Your task to perform on an android device: Empty the shopping cart on walmart. Search for logitech g910 on walmart, select the first entry, add it to the cart, then select checkout. Image 0: 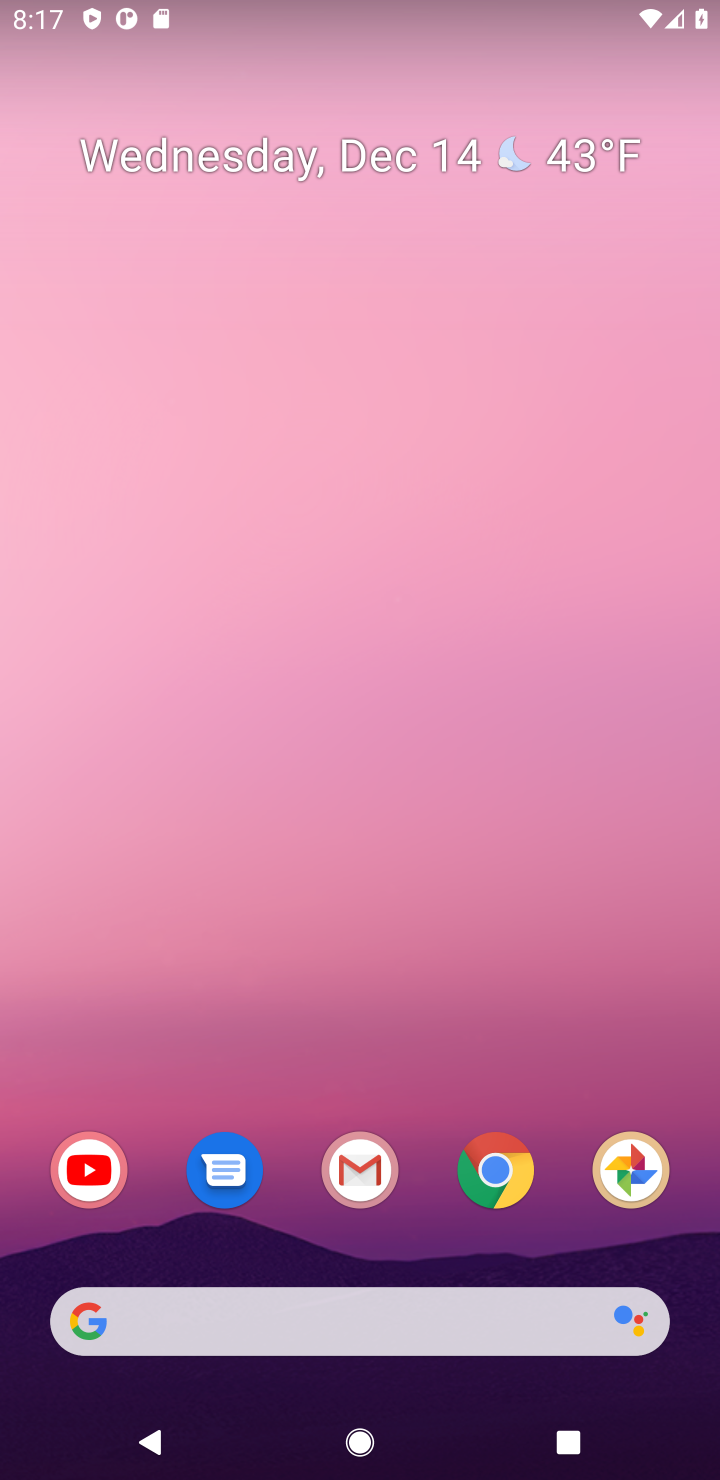
Step 0: click (488, 1177)
Your task to perform on an android device: Empty the shopping cart on walmart. Search for logitech g910 on walmart, select the first entry, add it to the cart, then select checkout. Image 1: 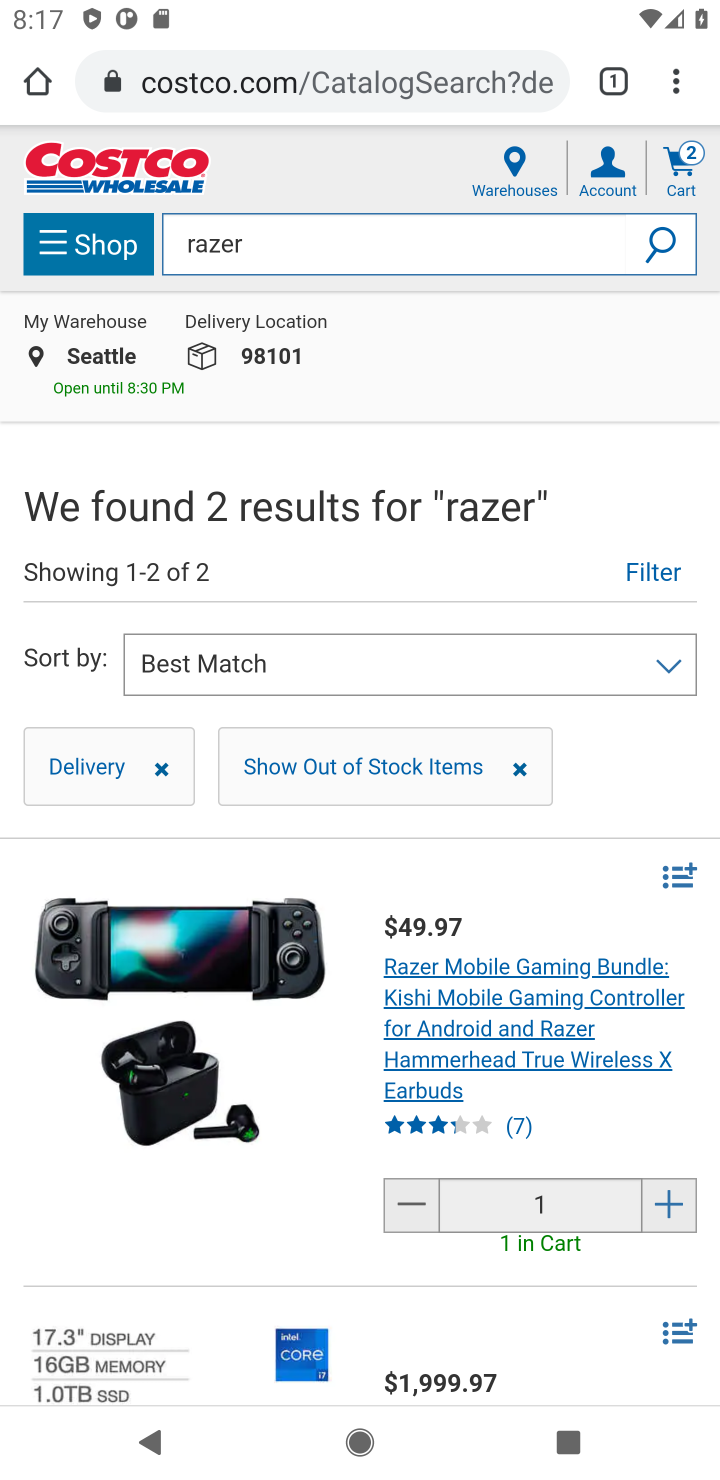
Step 1: click (337, 68)
Your task to perform on an android device: Empty the shopping cart on walmart. Search for logitech g910 on walmart, select the first entry, add it to the cart, then select checkout. Image 2: 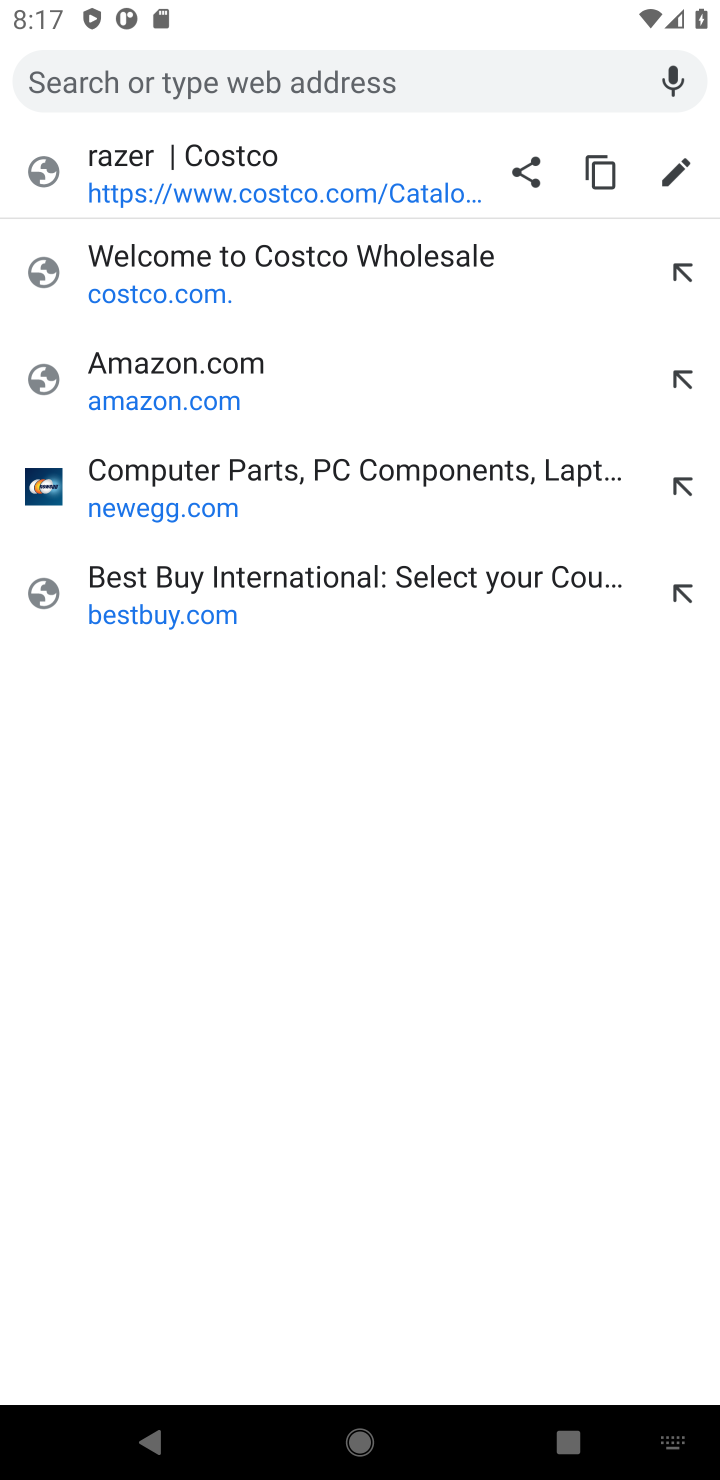
Step 2: type "WALMART"
Your task to perform on an android device: Empty the shopping cart on walmart. Search for logitech g910 on walmart, select the first entry, add it to the cart, then select checkout. Image 3: 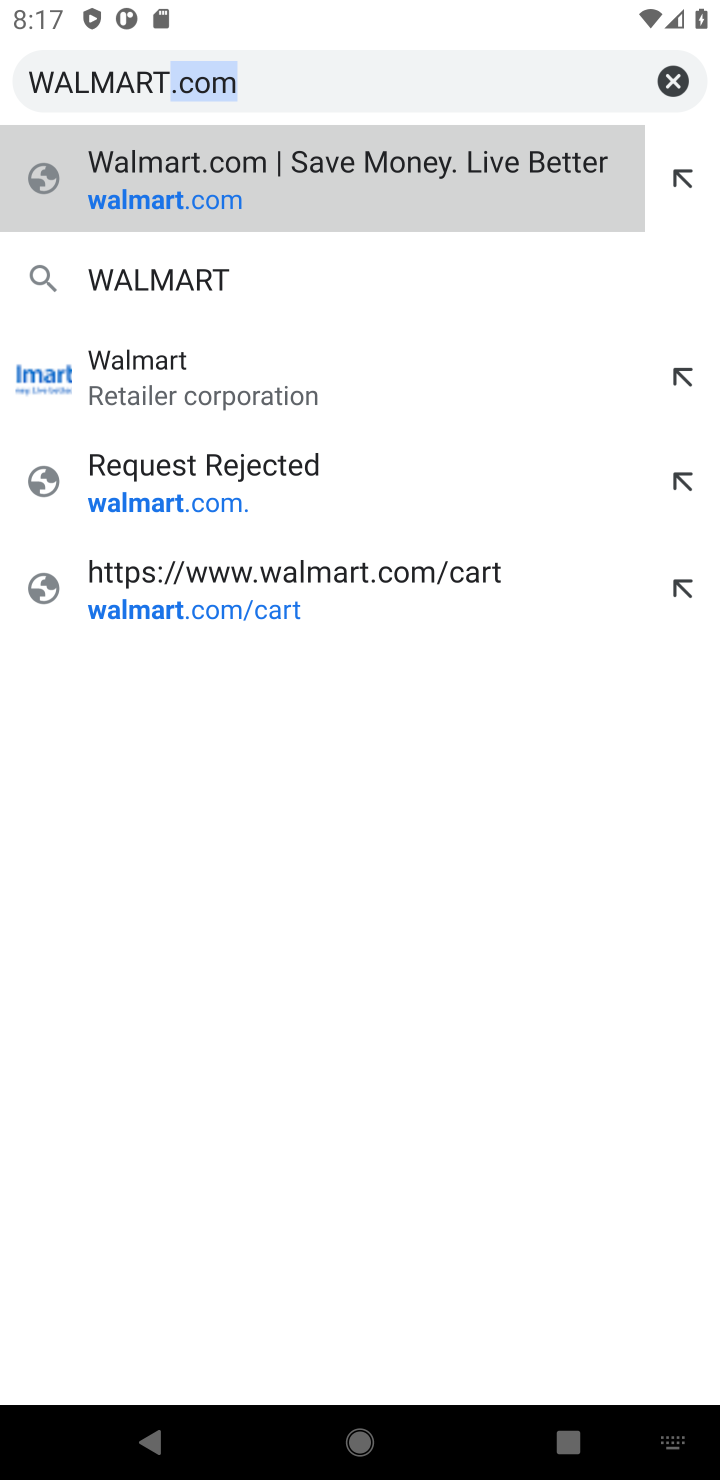
Step 3: click (199, 184)
Your task to perform on an android device: Empty the shopping cart on walmart. Search for logitech g910 on walmart, select the first entry, add it to the cart, then select checkout. Image 4: 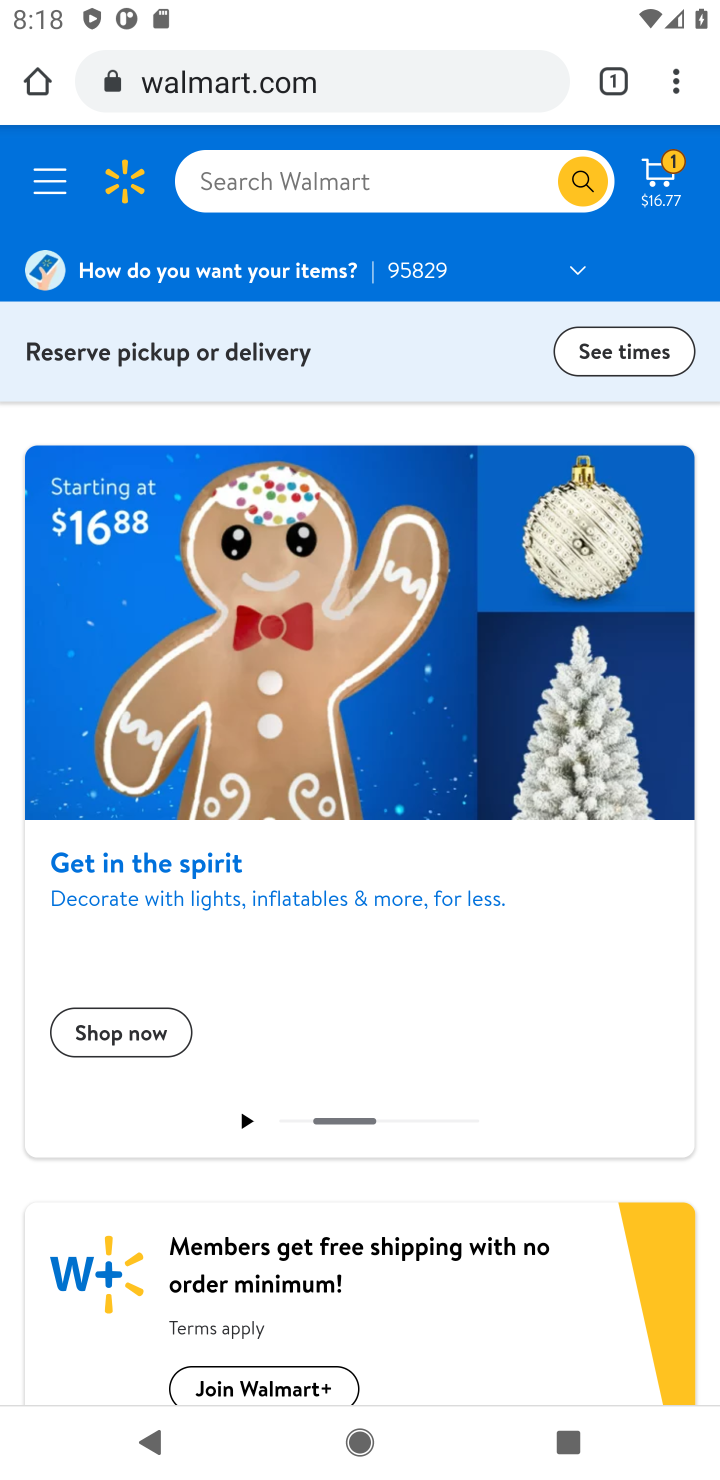
Step 4: click (663, 173)
Your task to perform on an android device: Empty the shopping cart on walmart. Search for logitech g910 on walmart, select the first entry, add it to the cart, then select checkout. Image 5: 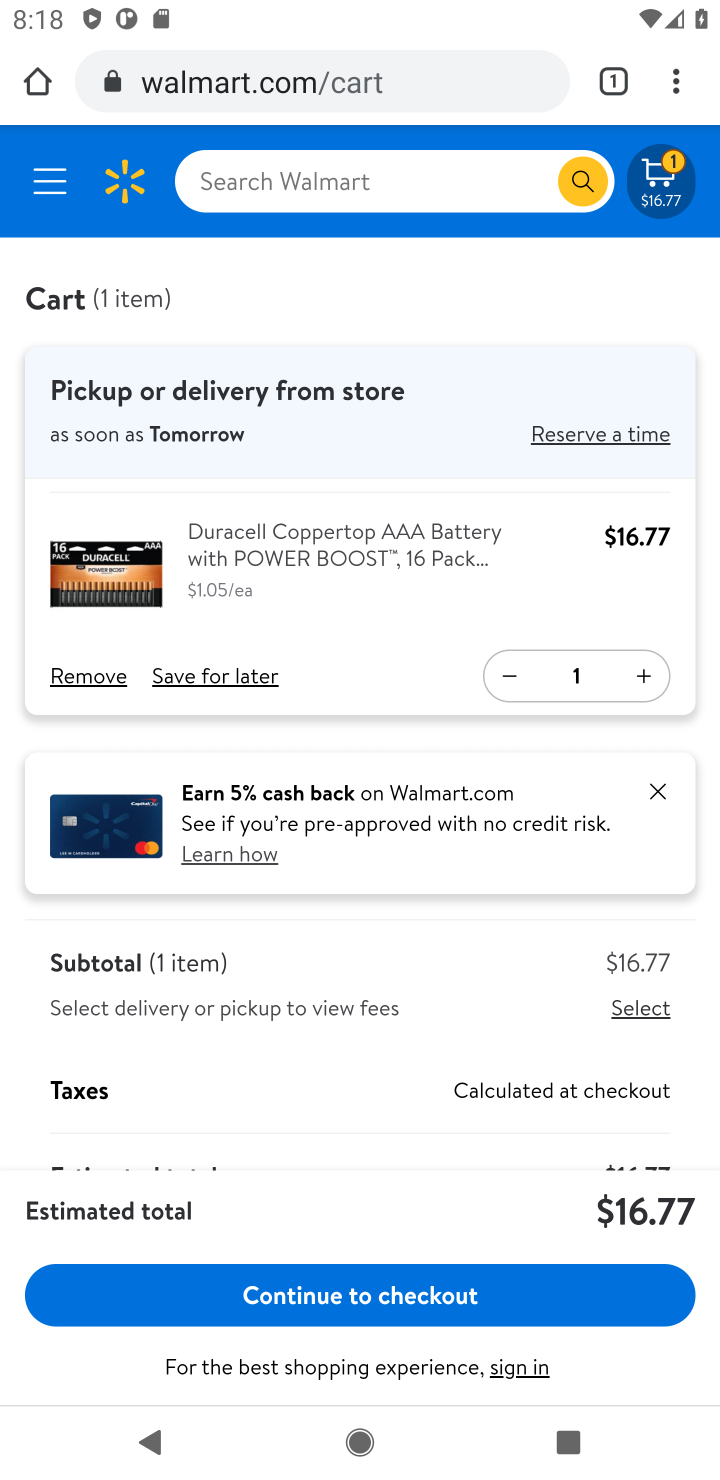
Step 5: click (97, 674)
Your task to perform on an android device: Empty the shopping cart on walmart. Search for logitech g910 on walmart, select the first entry, add it to the cart, then select checkout. Image 6: 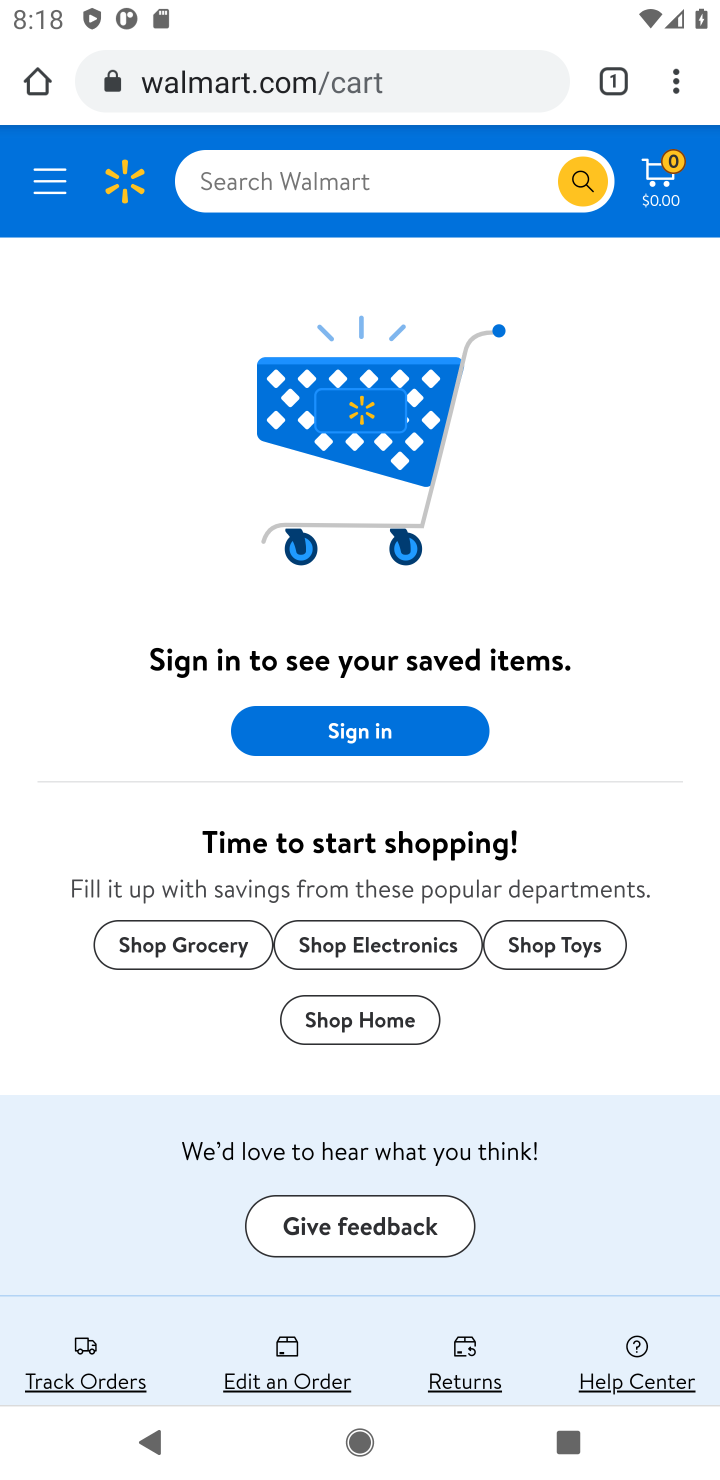
Step 6: click (389, 169)
Your task to perform on an android device: Empty the shopping cart on walmart. Search for logitech g910 on walmart, select the first entry, add it to the cart, then select checkout. Image 7: 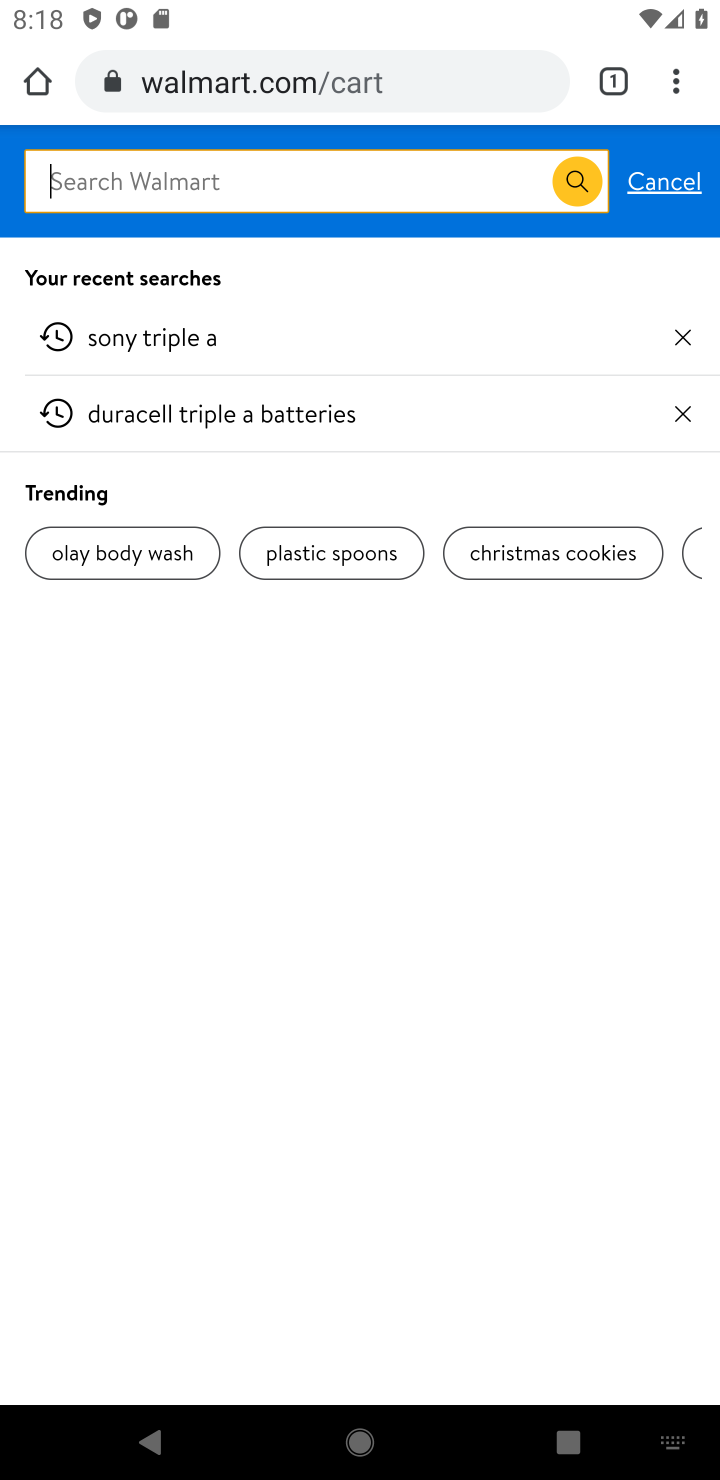
Step 7: type " logitech g910 "
Your task to perform on an android device: Empty the shopping cart on walmart. Search for logitech g910 on walmart, select the first entry, add it to the cart, then select checkout. Image 8: 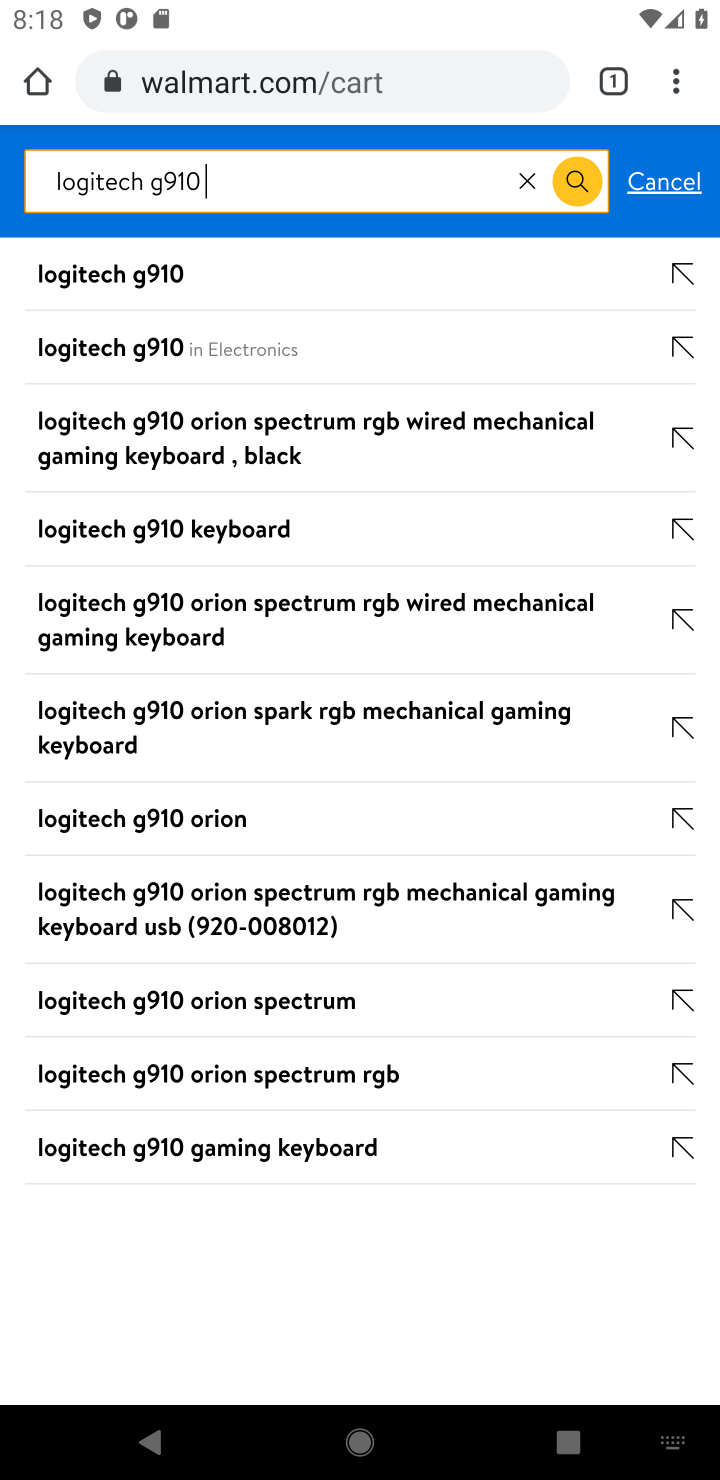
Step 8: click (136, 280)
Your task to perform on an android device: Empty the shopping cart on walmart. Search for logitech g910 on walmart, select the first entry, add it to the cart, then select checkout. Image 9: 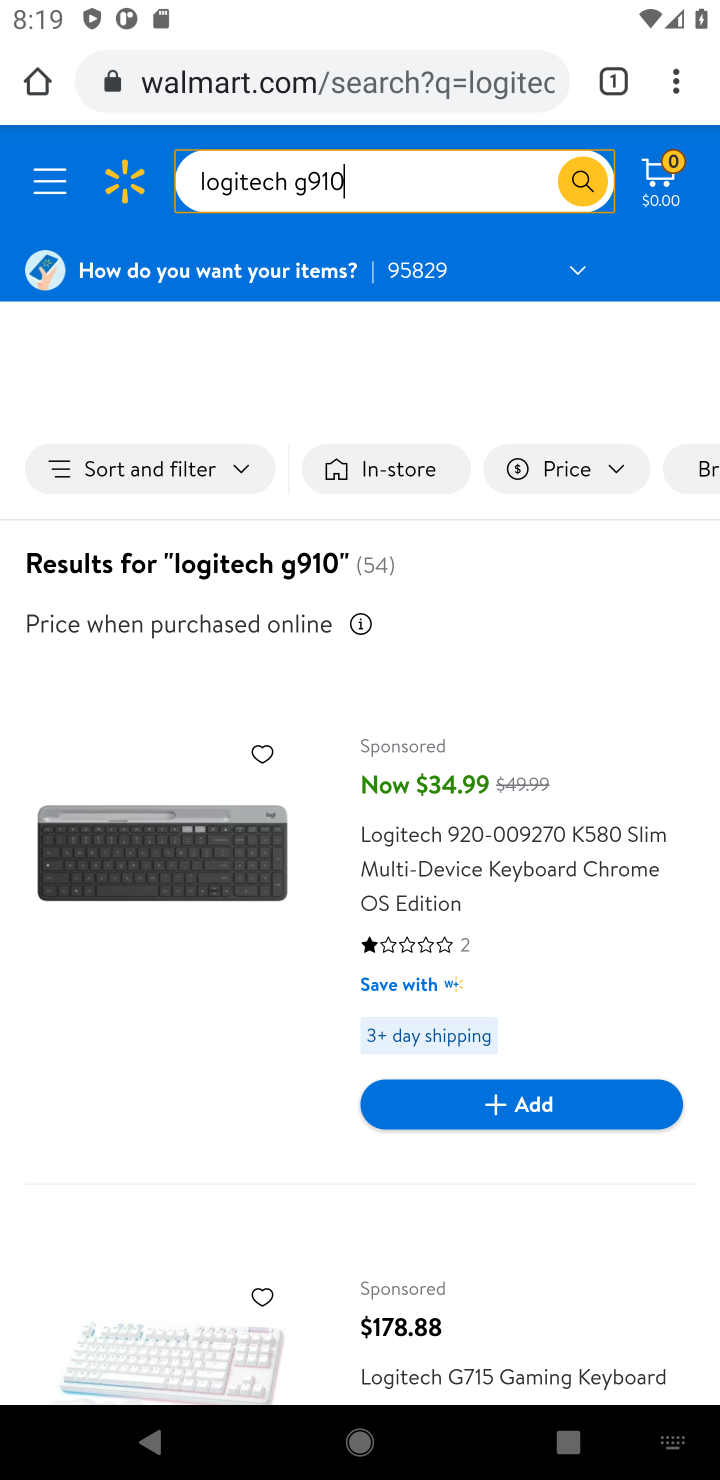
Step 9: click (533, 1110)
Your task to perform on an android device: Empty the shopping cart on walmart. Search for logitech g910 on walmart, select the first entry, add it to the cart, then select checkout. Image 10: 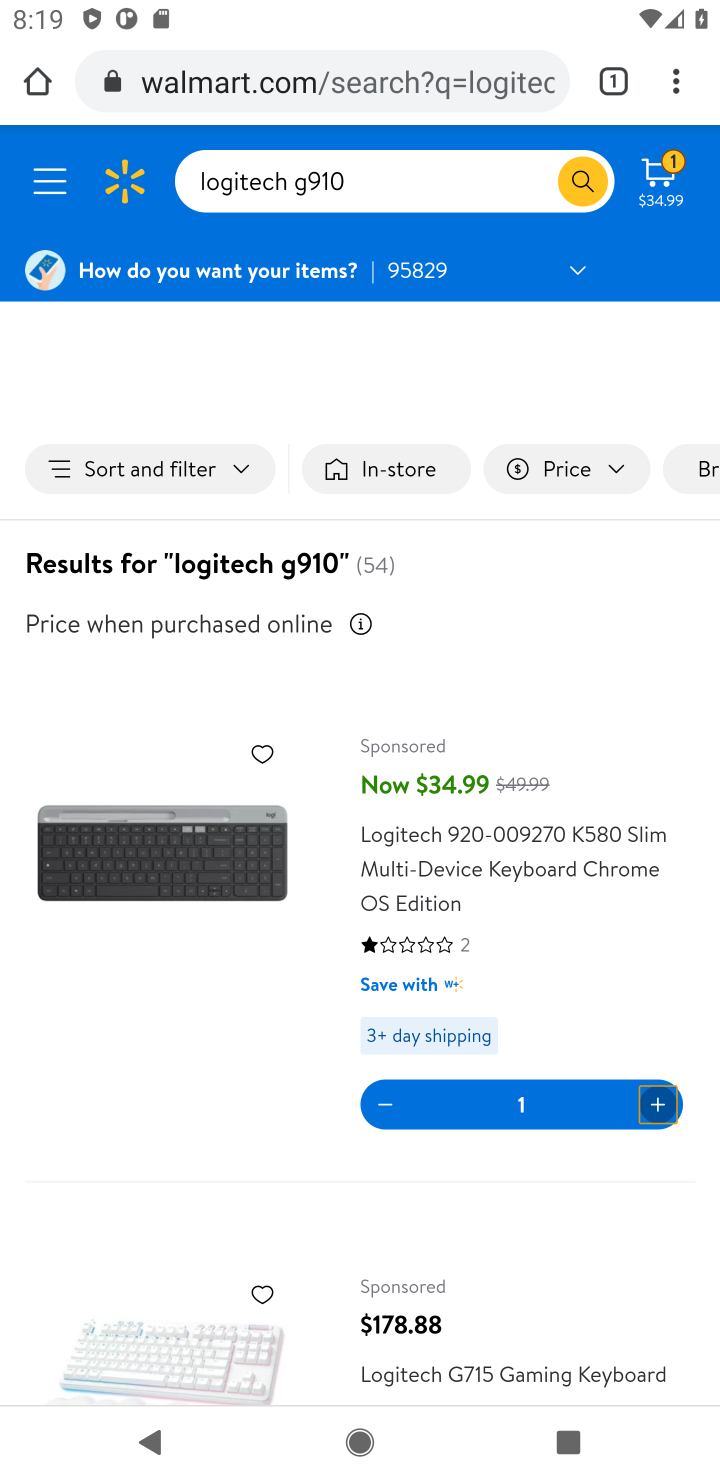
Step 10: click (660, 173)
Your task to perform on an android device: Empty the shopping cart on walmart. Search for logitech g910 on walmart, select the first entry, add it to the cart, then select checkout. Image 11: 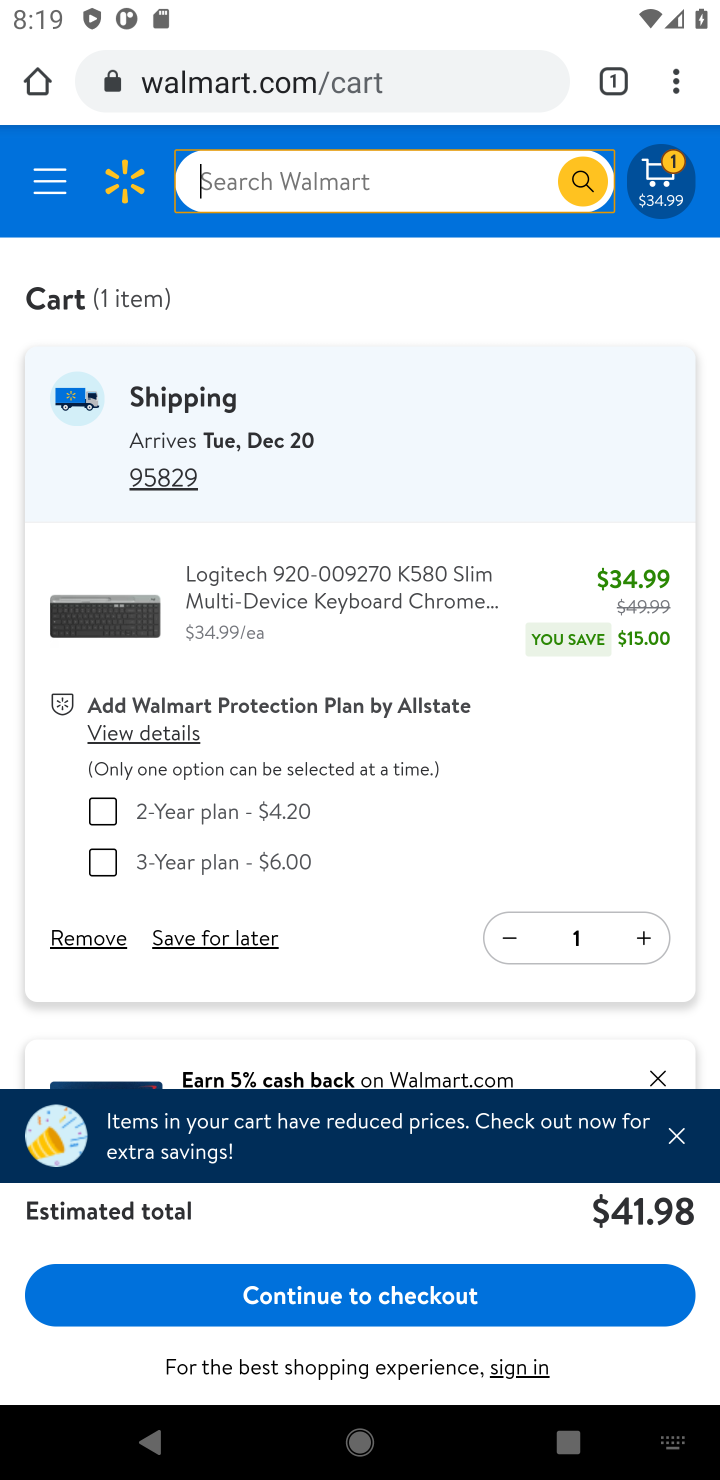
Step 11: click (327, 1290)
Your task to perform on an android device: Empty the shopping cart on walmart. Search for logitech g910 on walmart, select the first entry, add it to the cart, then select checkout. Image 12: 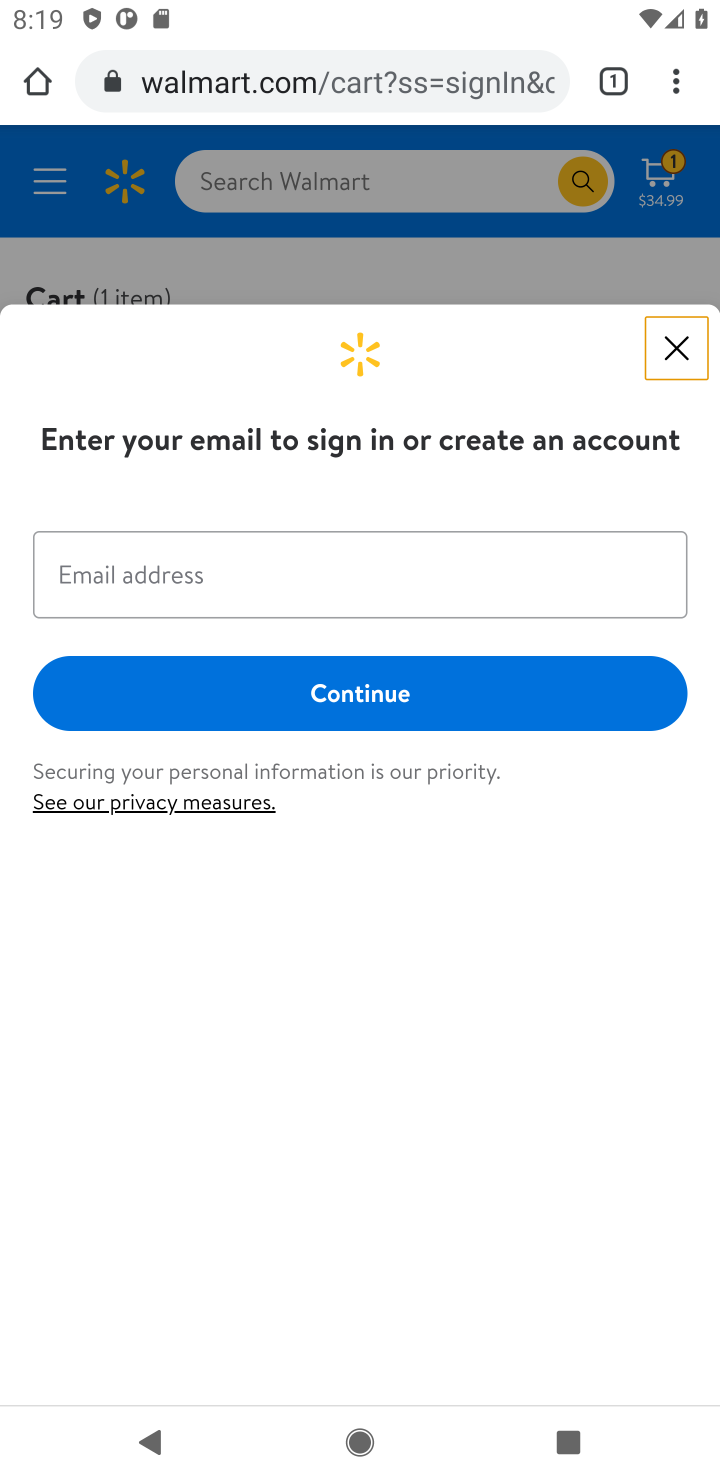
Step 12: task complete